Your task to perform on an android device: open a new tab in the chrome app Image 0: 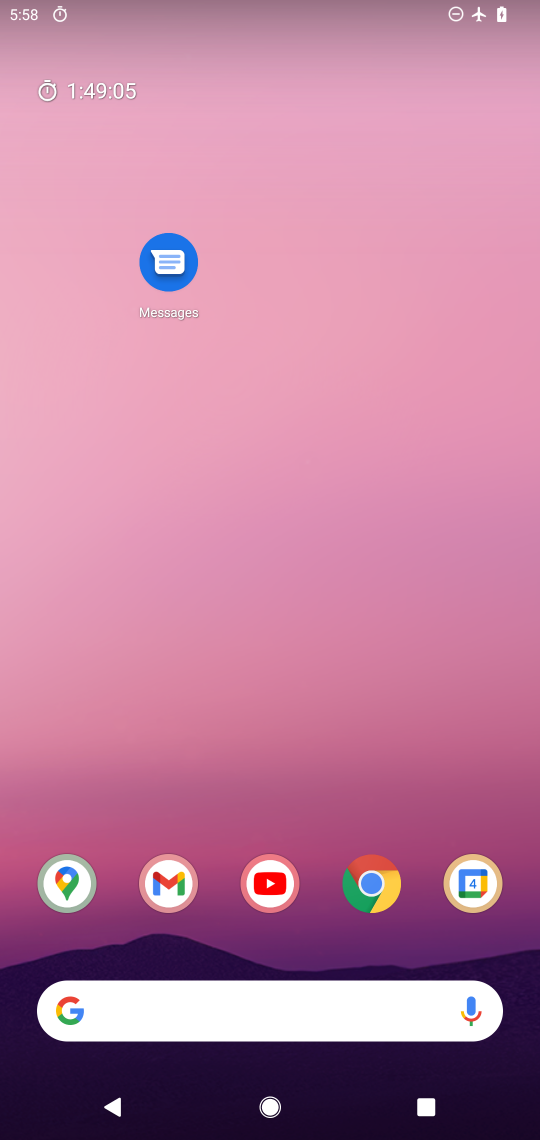
Step 0: click (372, 883)
Your task to perform on an android device: open a new tab in the chrome app Image 1: 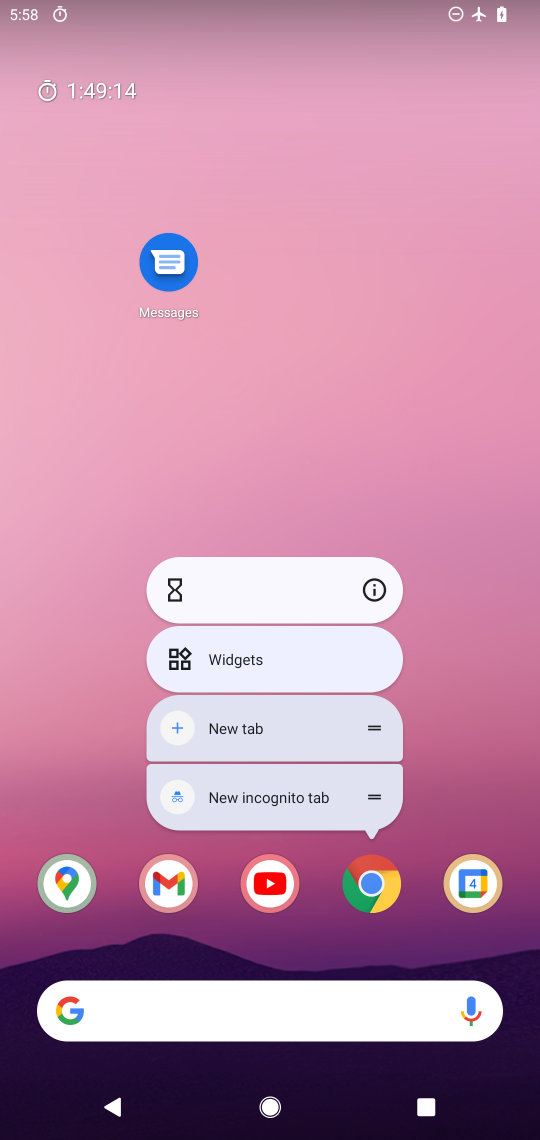
Step 1: click (374, 866)
Your task to perform on an android device: open a new tab in the chrome app Image 2: 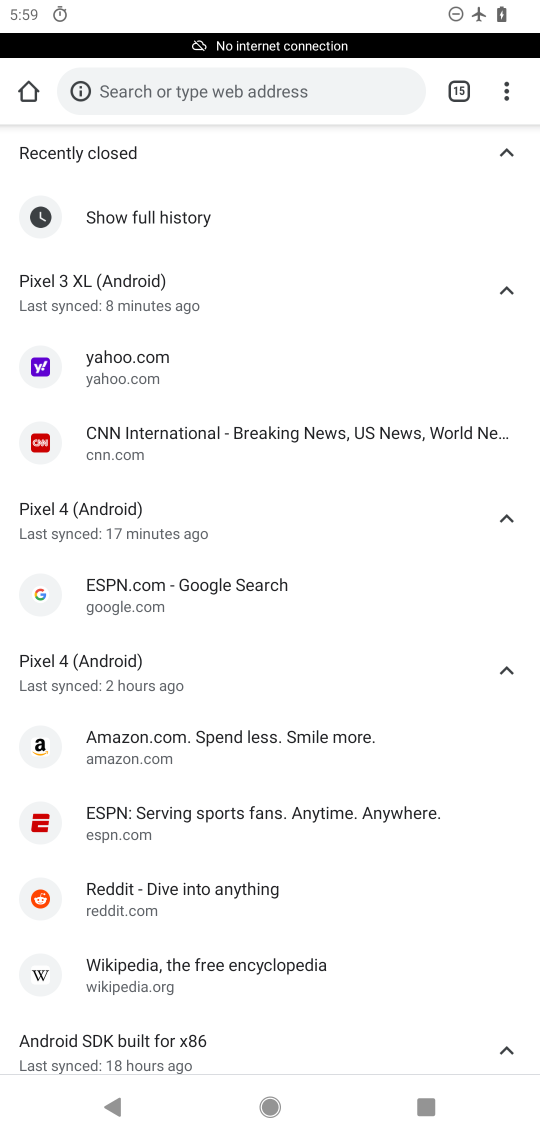
Step 2: click (503, 96)
Your task to perform on an android device: open a new tab in the chrome app Image 3: 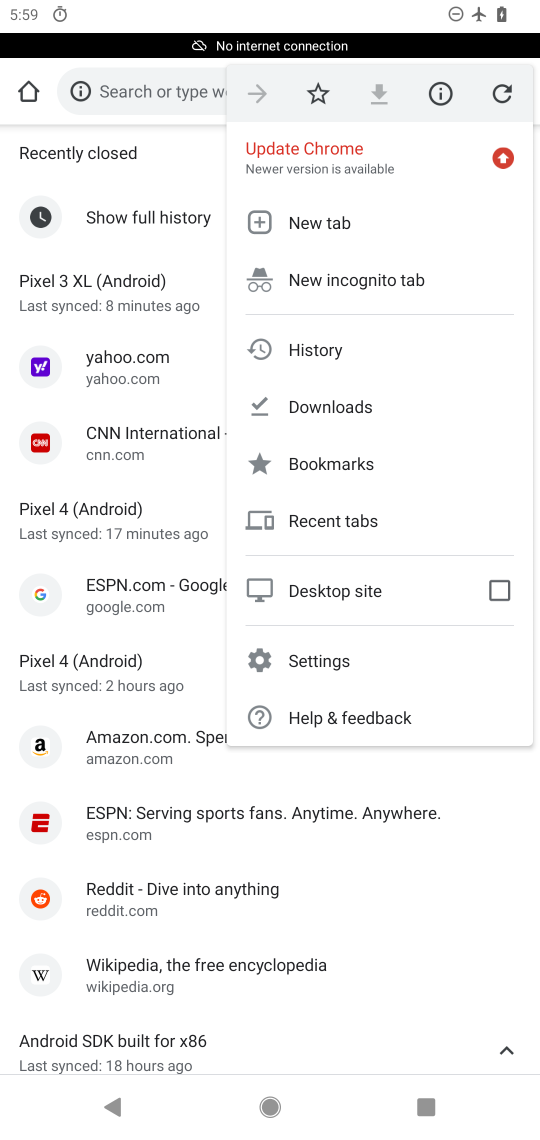
Step 3: click (309, 217)
Your task to perform on an android device: open a new tab in the chrome app Image 4: 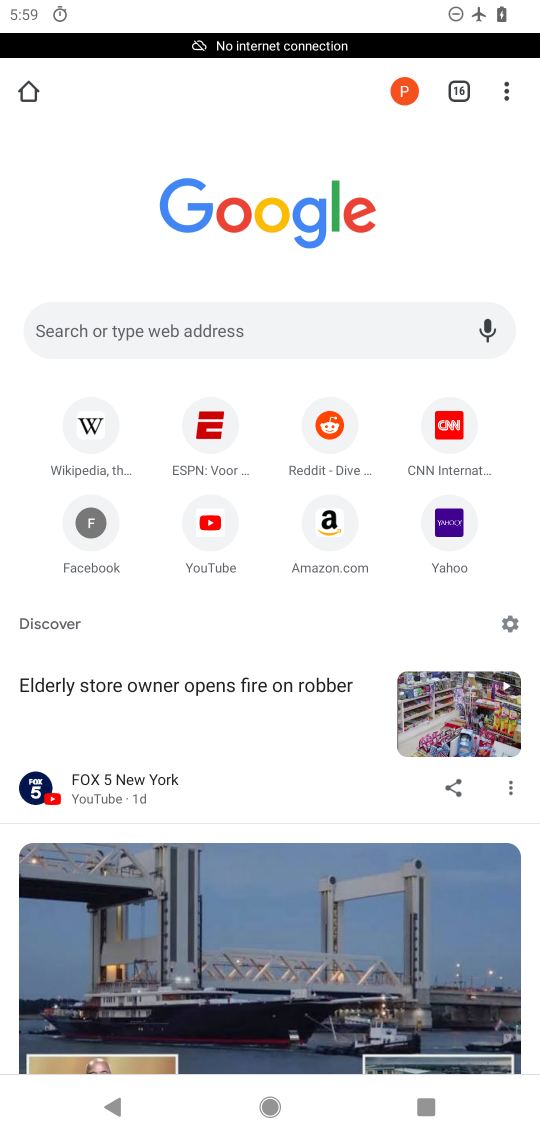
Step 4: task complete